Your task to perform on an android device: set the timer Image 0: 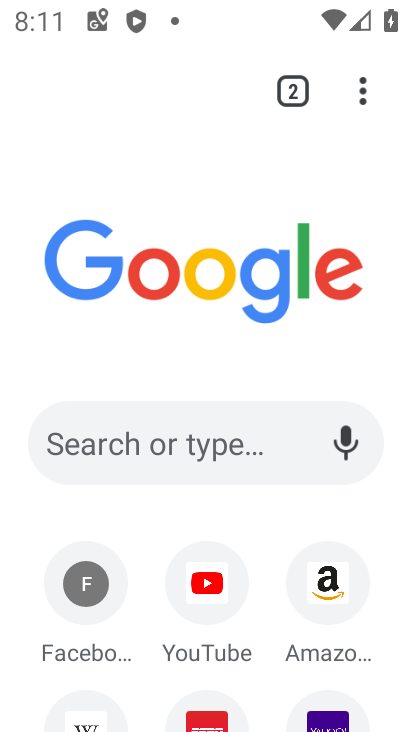
Step 0: press home button
Your task to perform on an android device: set the timer Image 1: 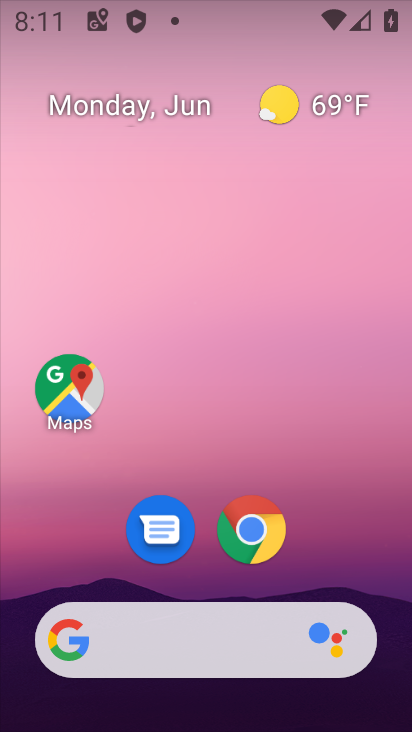
Step 1: drag from (333, 504) to (402, 115)
Your task to perform on an android device: set the timer Image 2: 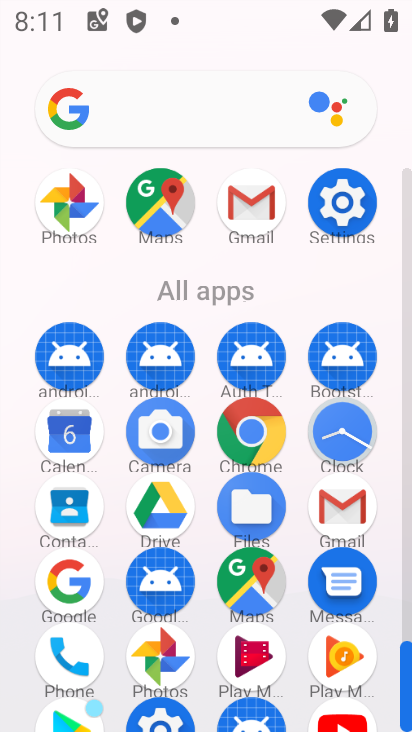
Step 2: click (338, 446)
Your task to perform on an android device: set the timer Image 3: 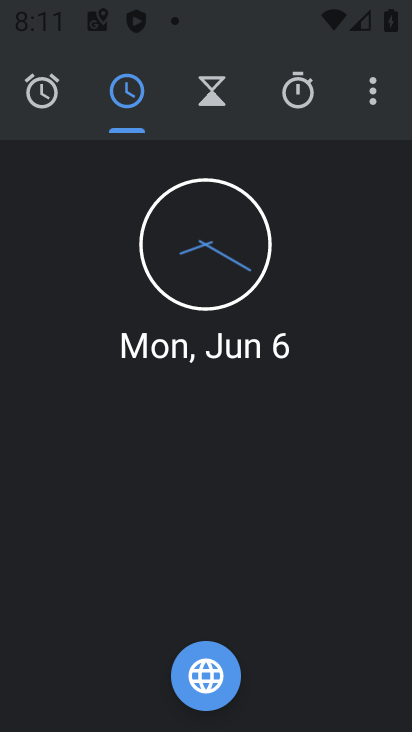
Step 3: click (189, 242)
Your task to perform on an android device: set the timer Image 4: 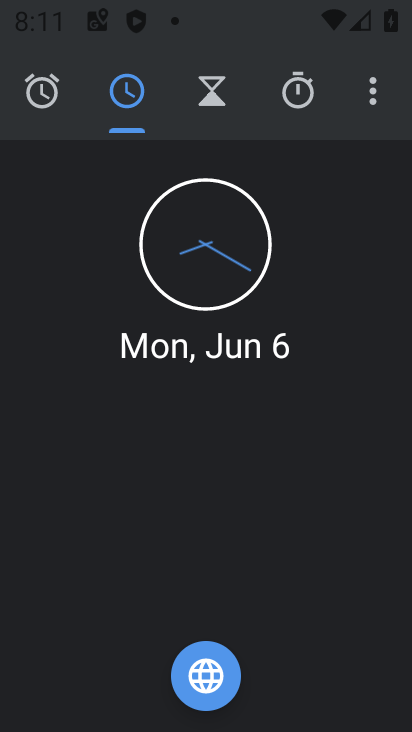
Step 4: press home button
Your task to perform on an android device: set the timer Image 5: 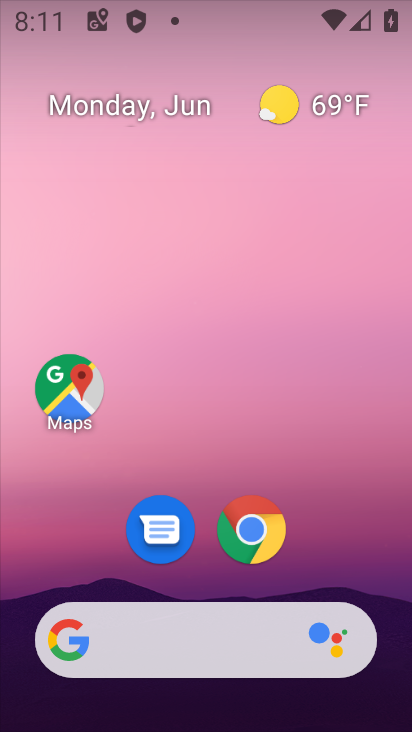
Step 5: drag from (337, 517) to (352, 424)
Your task to perform on an android device: set the timer Image 6: 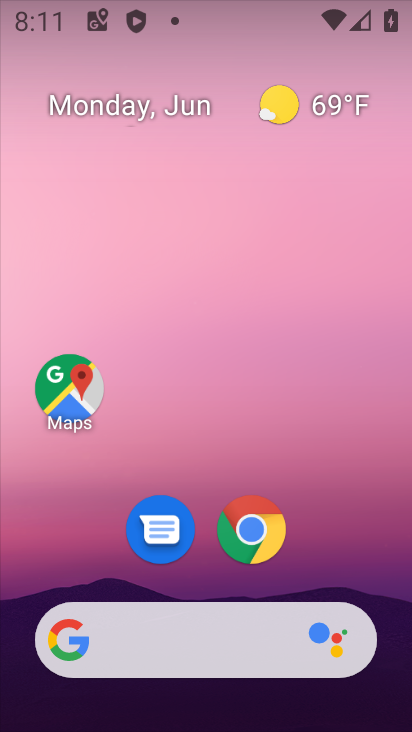
Step 6: drag from (360, 487) to (380, 195)
Your task to perform on an android device: set the timer Image 7: 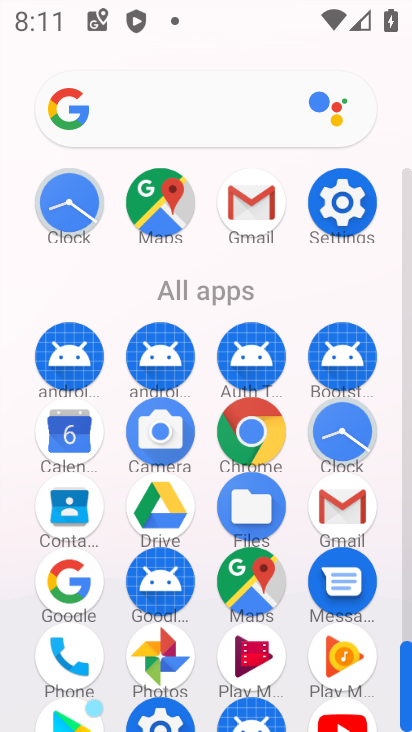
Step 7: click (62, 216)
Your task to perform on an android device: set the timer Image 8: 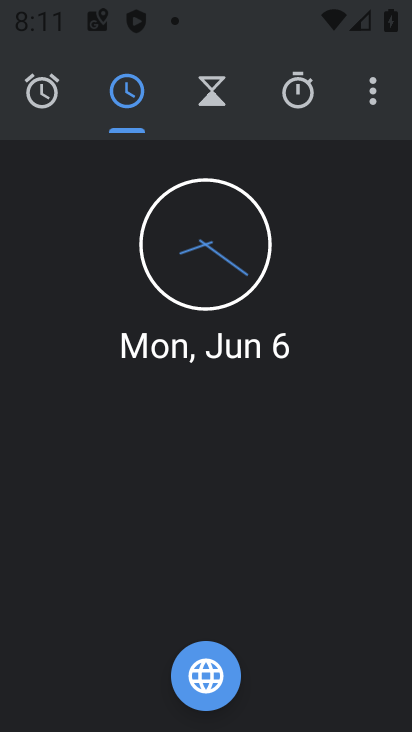
Step 8: click (299, 89)
Your task to perform on an android device: set the timer Image 9: 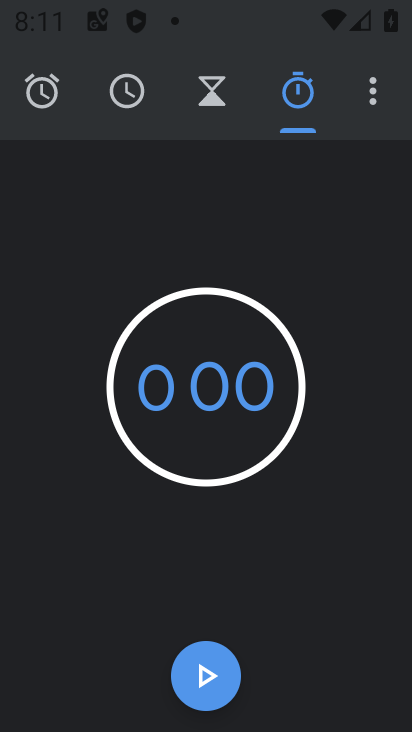
Step 9: click (217, 84)
Your task to perform on an android device: set the timer Image 10: 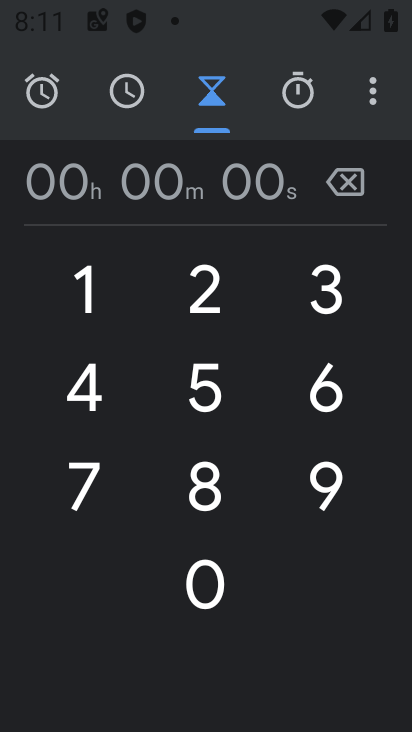
Step 10: click (219, 576)
Your task to perform on an android device: set the timer Image 11: 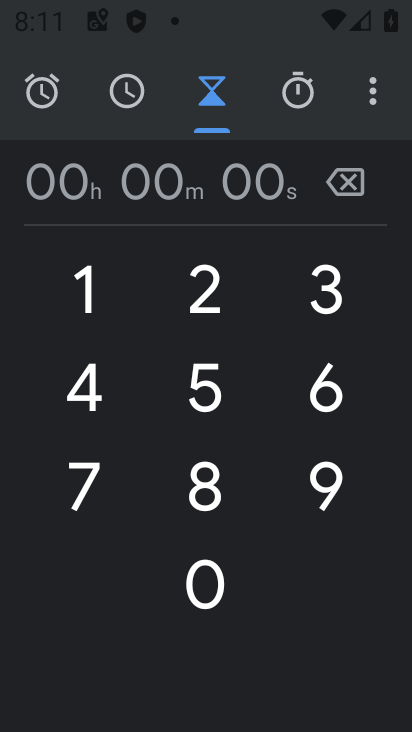
Step 11: click (83, 271)
Your task to perform on an android device: set the timer Image 12: 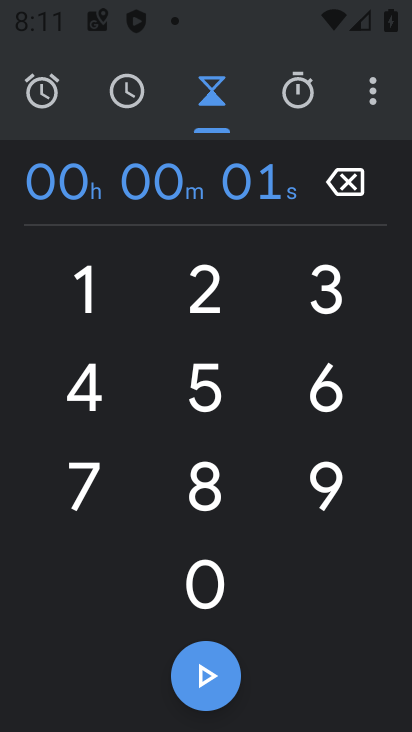
Step 12: click (81, 290)
Your task to perform on an android device: set the timer Image 13: 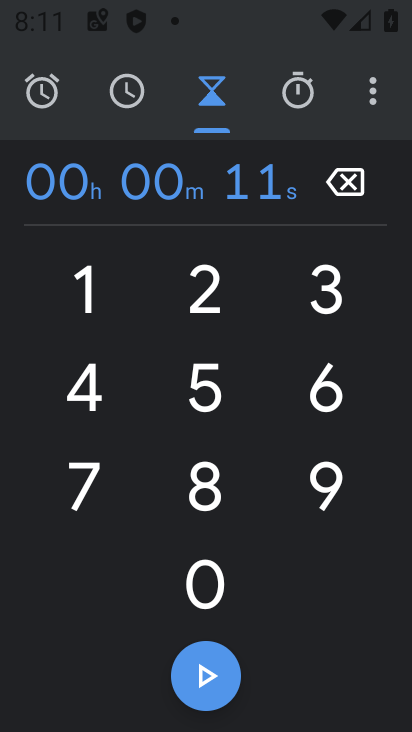
Step 13: click (200, 385)
Your task to perform on an android device: set the timer Image 14: 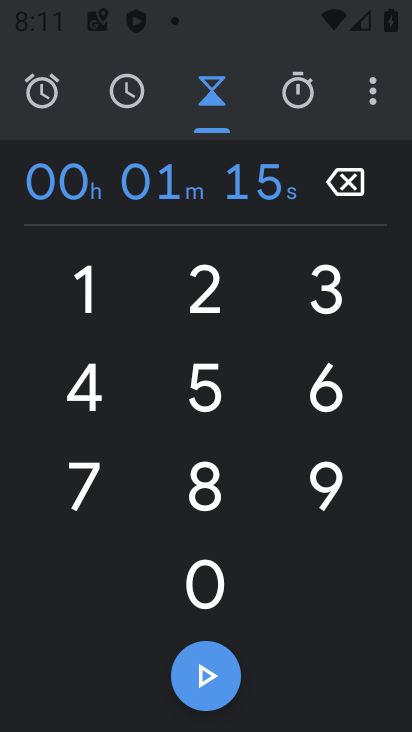
Step 14: click (207, 399)
Your task to perform on an android device: set the timer Image 15: 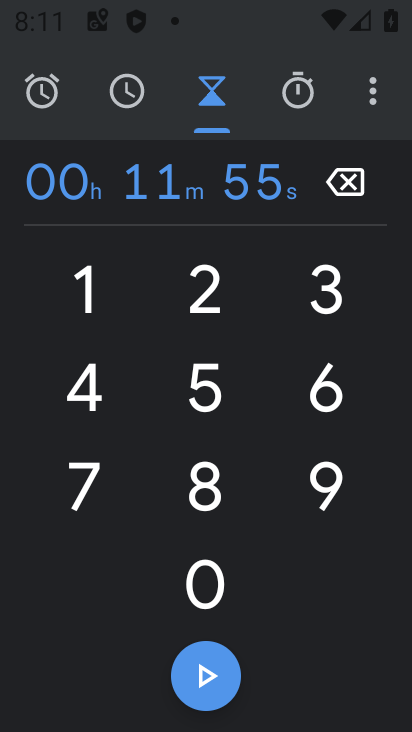
Step 15: click (334, 476)
Your task to perform on an android device: set the timer Image 16: 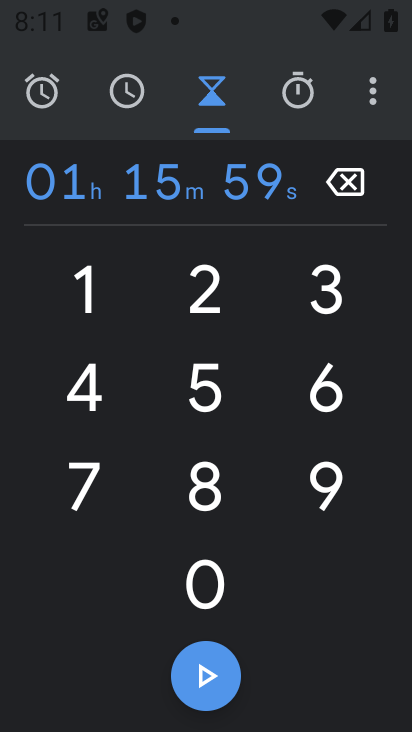
Step 16: click (210, 660)
Your task to perform on an android device: set the timer Image 17: 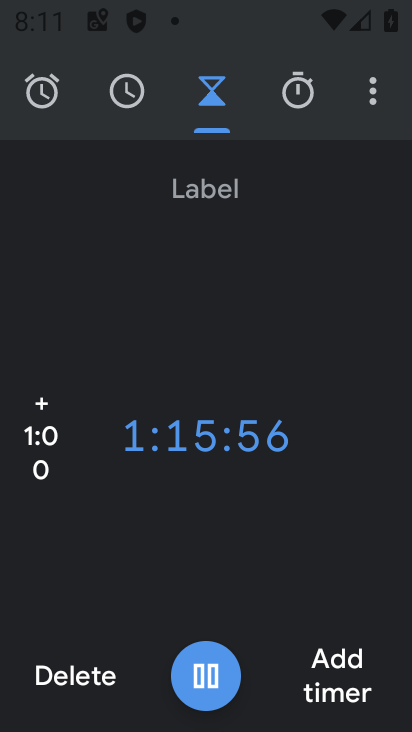
Step 17: task complete